Your task to perform on an android device: turn notification dots off Image 0: 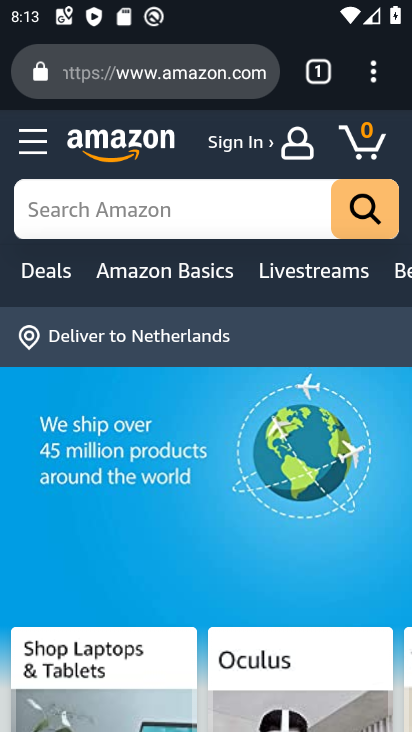
Step 0: click (382, 84)
Your task to perform on an android device: turn notification dots off Image 1: 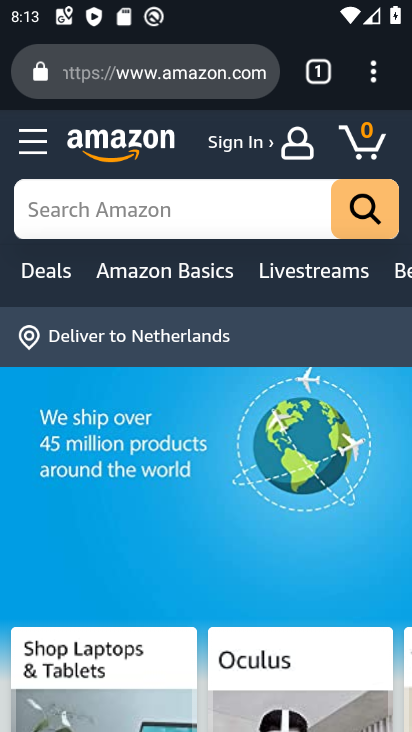
Step 1: drag from (373, 75) to (172, 589)
Your task to perform on an android device: turn notification dots off Image 2: 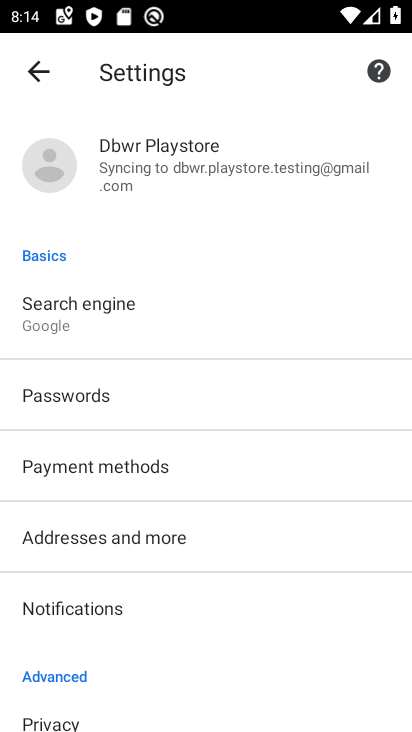
Step 2: click (151, 621)
Your task to perform on an android device: turn notification dots off Image 3: 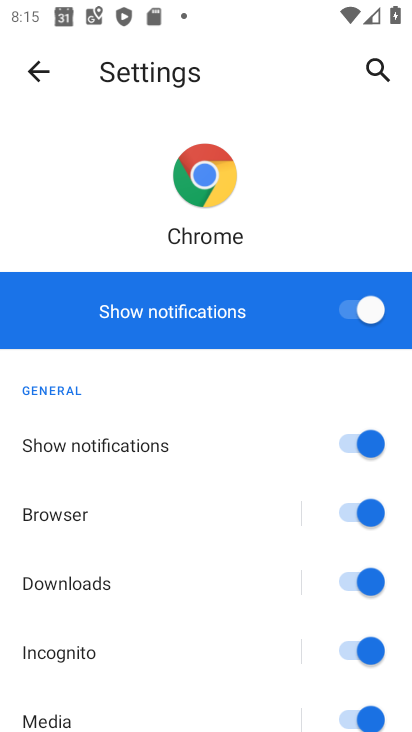
Step 3: drag from (180, 604) to (123, 133)
Your task to perform on an android device: turn notification dots off Image 4: 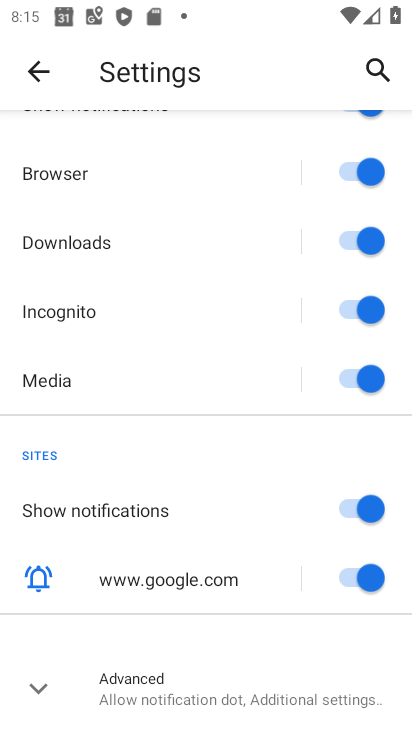
Step 4: drag from (158, 601) to (157, 275)
Your task to perform on an android device: turn notification dots off Image 5: 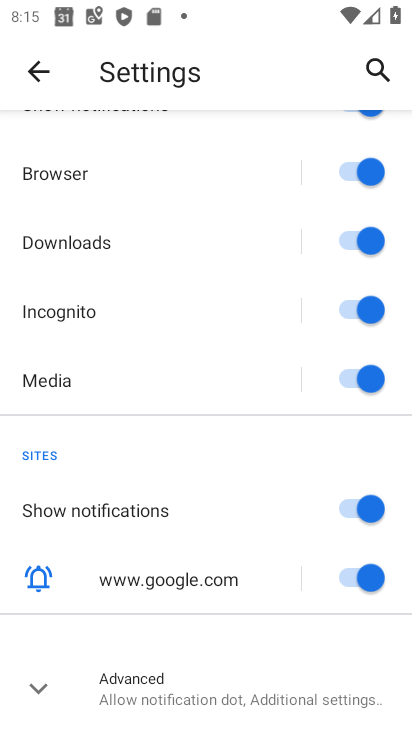
Step 5: click (138, 669)
Your task to perform on an android device: turn notification dots off Image 6: 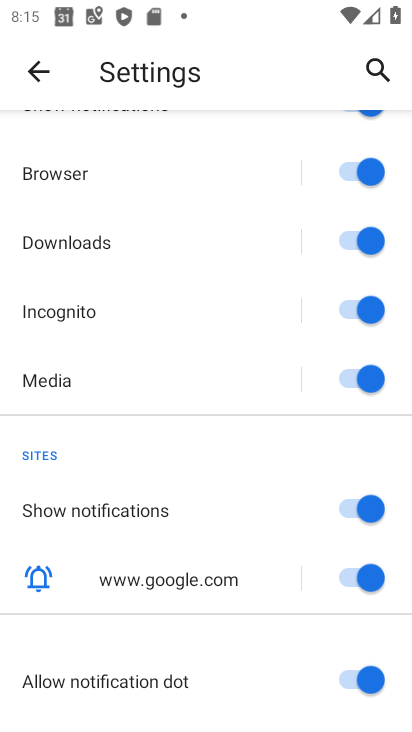
Step 6: drag from (158, 668) to (132, 207)
Your task to perform on an android device: turn notification dots off Image 7: 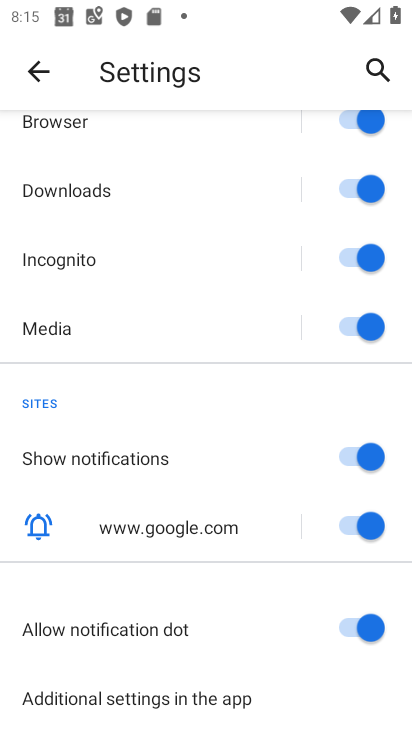
Step 7: click (387, 640)
Your task to perform on an android device: turn notification dots off Image 8: 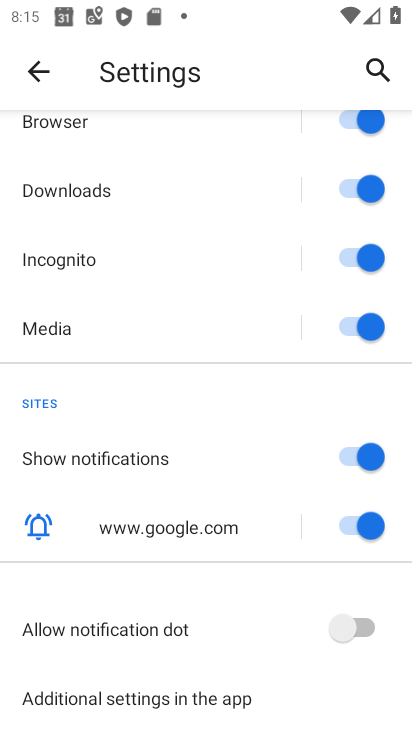
Step 8: task complete